Your task to perform on an android device: open sync settings in chrome Image 0: 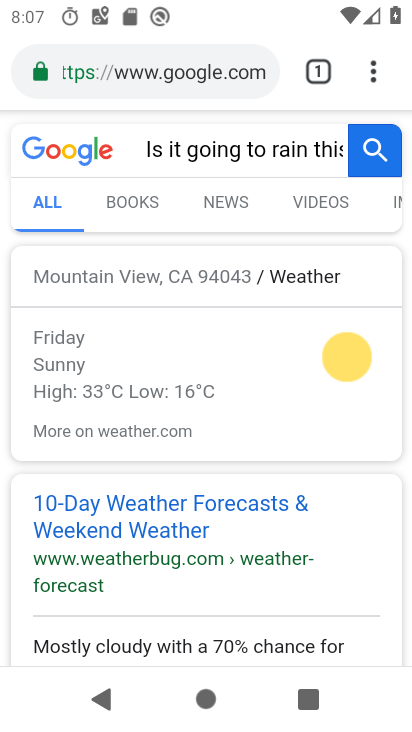
Step 0: press home button
Your task to perform on an android device: open sync settings in chrome Image 1: 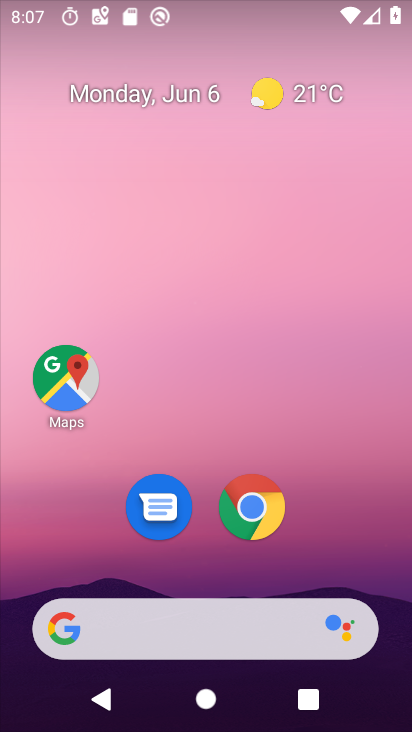
Step 1: click (246, 505)
Your task to perform on an android device: open sync settings in chrome Image 2: 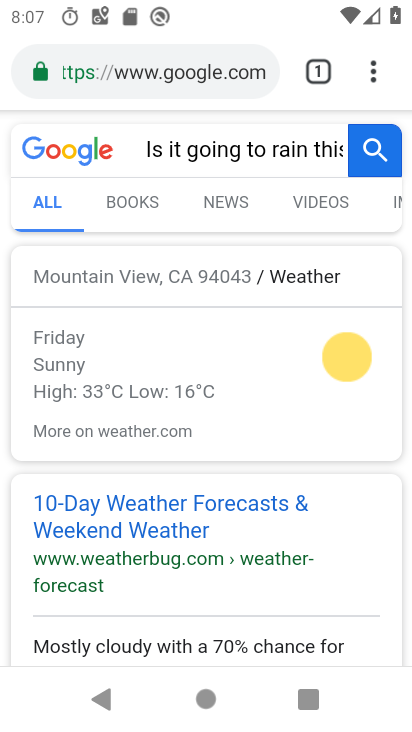
Step 2: drag from (370, 61) to (191, 494)
Your task to perform on an android device: open sync settings in chrome Image 3: 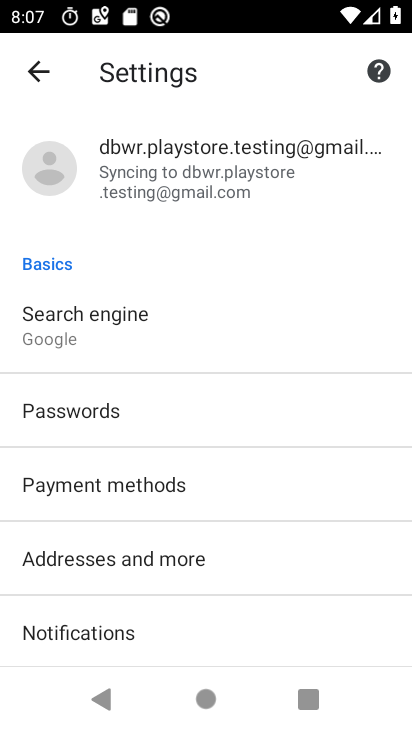
Step 3: drag from (210, 654) to (182, 696)
Your task to perform on an android device: open sync settings in chrome Image 4: 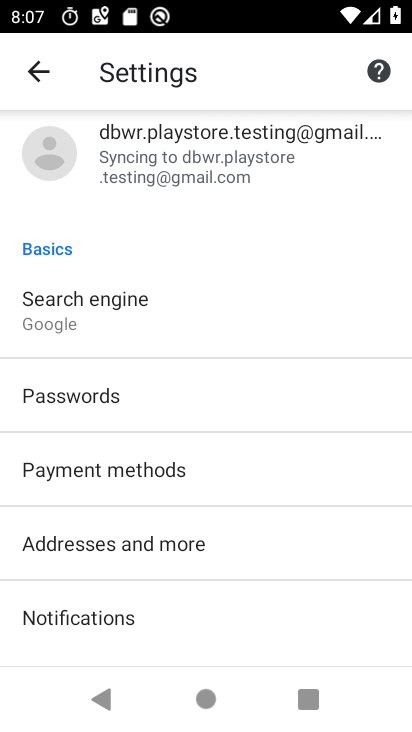
Step 4: click (213, 178)
Your task to perform on an android device: open sync settings in chrome Image 5: 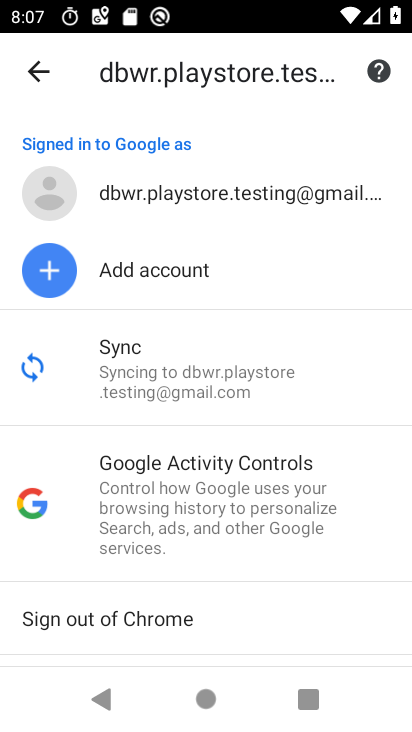
Step 5: click (62, 384)
Your task to perform on an android device: open sync settings in chrome Image 6: 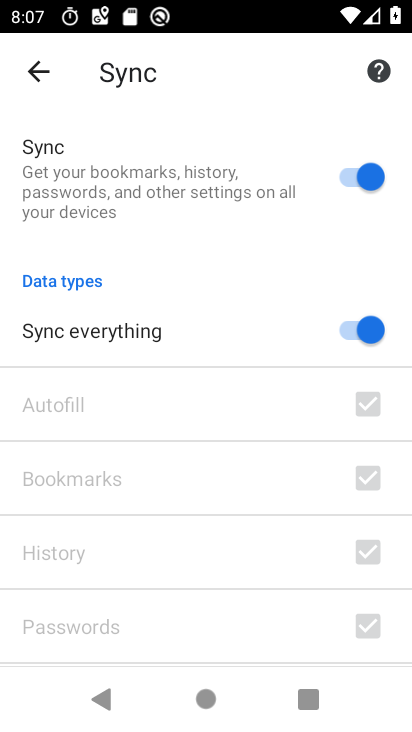
Step 6: task complete